Your task to perform on an android device: Go to Android settings Image 0: 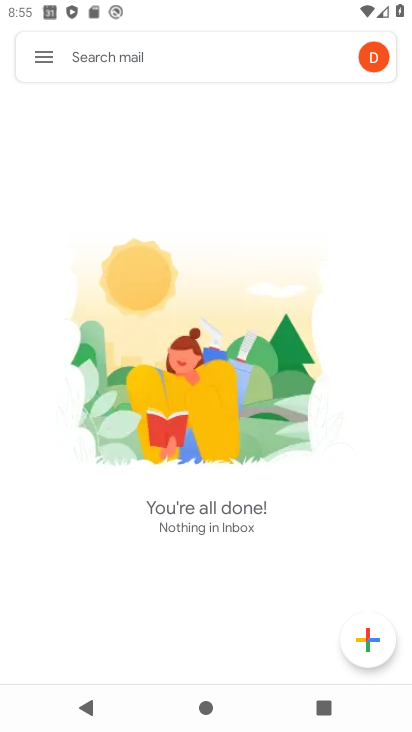
Step 0: press home button
Your task to perform on an android device: Go to Android settings Image 1: 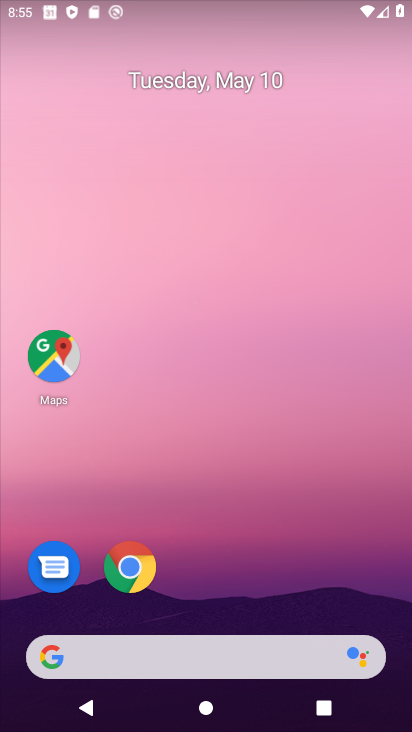
Step 1: drag from (307, 531) to (252, 3)
Your task to perform on an android device: Go to Android settings Image 2: 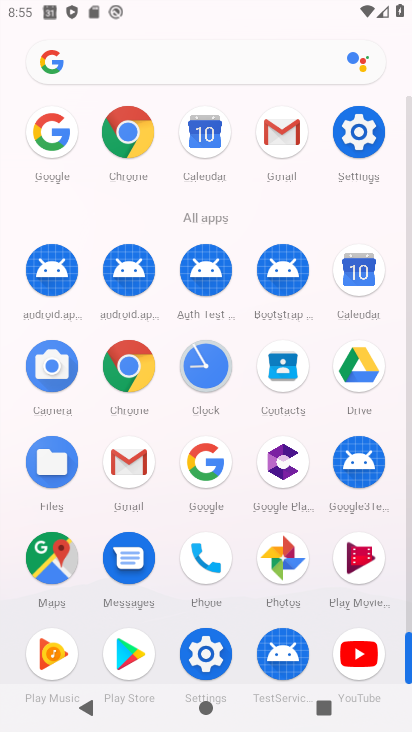
Step 2: click (357, 132)
Your task to perform on an android device: Go to Android settings Image 3: 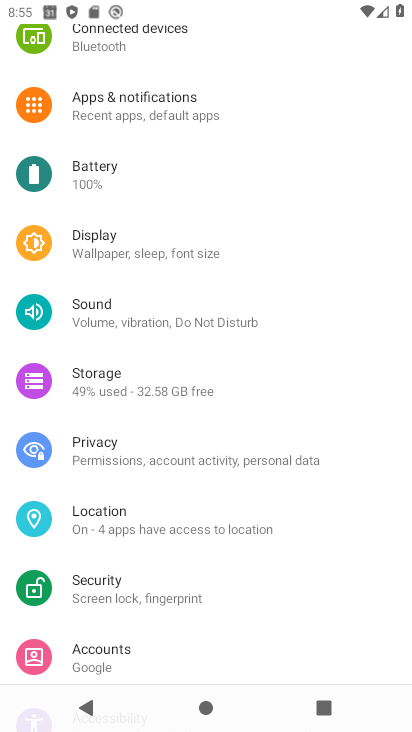
Step 3: drag from (157, 547) to (213, 49)
Your task to perform on an android device: Go to Android settings Image 4: 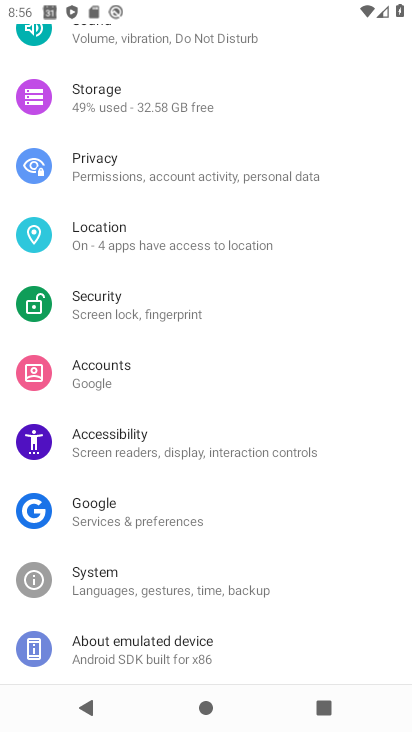
Step 4: drag from (154, 560) to (133, 129)
Your task to perform on an android device: Go to Android settings Image 5: 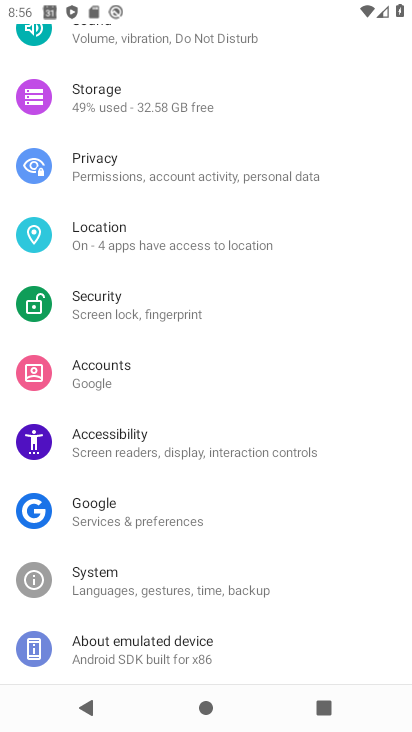
Step 5: click (128, 647)
Your task to perform on an android device: Go to Android settings Image 6: 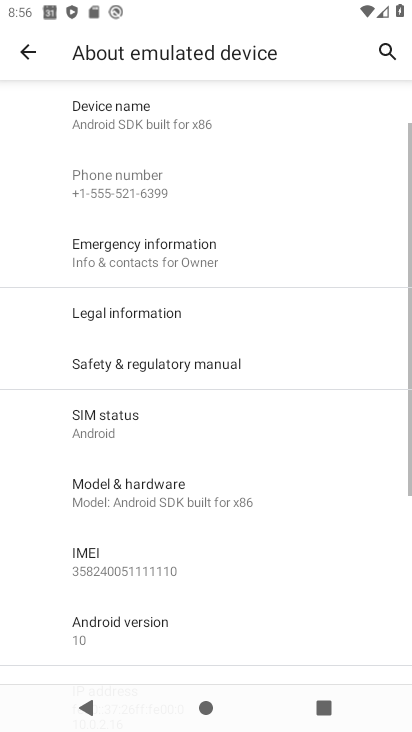
Step 6: drag from (128, 658) to (103, 344)
Your task to perform on an android device: Go to Android settings Image 7: 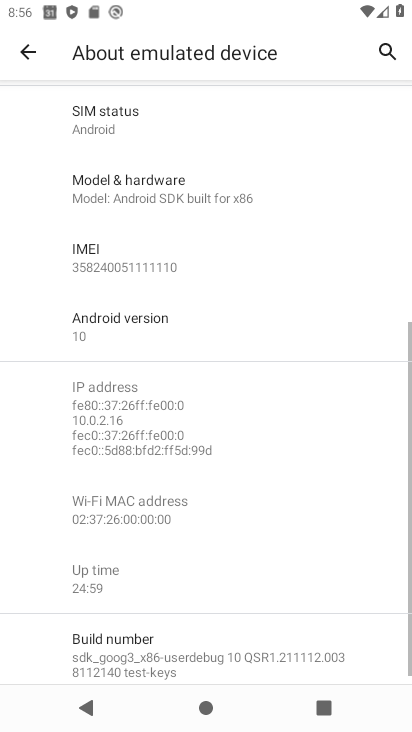
Step 7: click (88, 309)
Your task to perform on an android device: Go to Android settings Image 8: 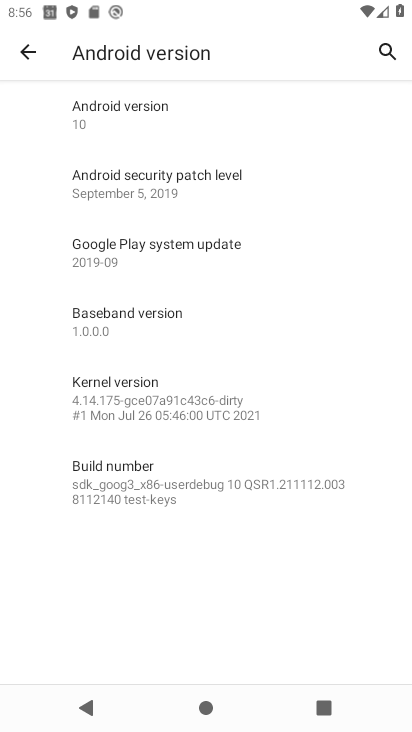
Step 8: task complete